Your task to perform on an android device: turn notification dots off Image 0: 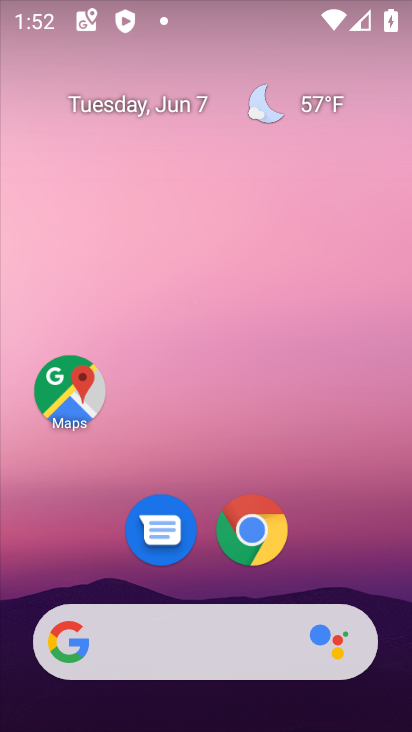
Step 0: drag from (311, 436) to (308, 123)
Your task to perform on an android device: turn notification dots off Image 1: 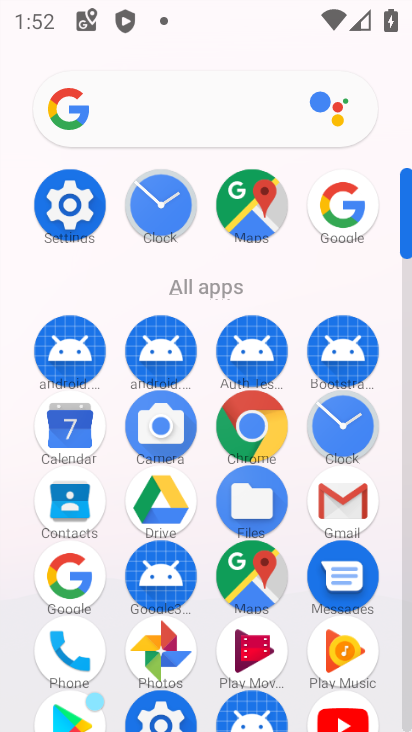
Step 1: click (77, 216)
Your task to perform on an android device: turn notification dots off Image 2: 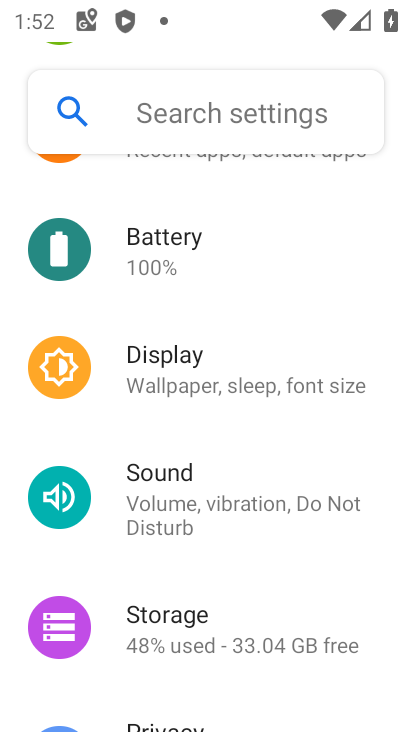
Step 2: drag from (193, 314) to (195, 428)
Your task to perform on an android device: turn notification dots off Image 3: 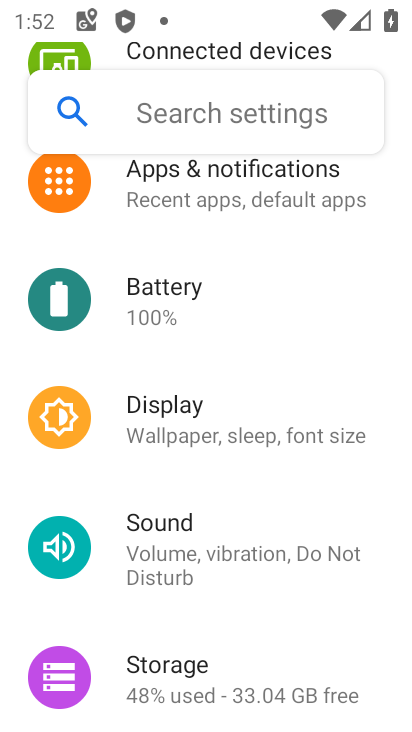
Step 3: click (176, 201)
Your task to perform on an android device: turn notification dots off Image 4: 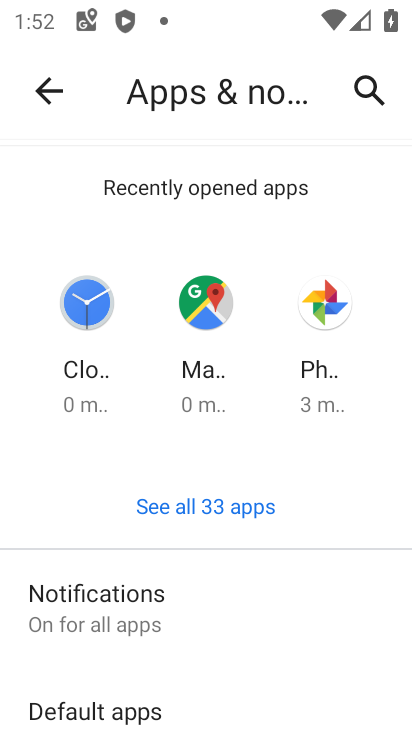
Step 4: click (115, 600)
Your task to perform on an android device: turn notification dots off Image 5: 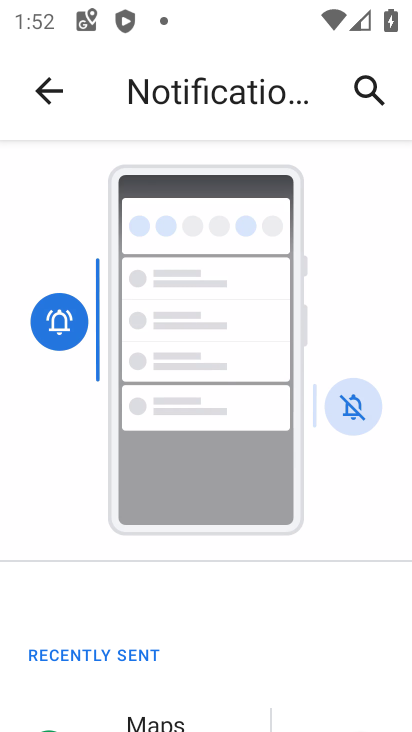
Step 5: drag from (211, 674) to (219, 120)
Your task to perform on an android device: turn notification dots off Image 6: 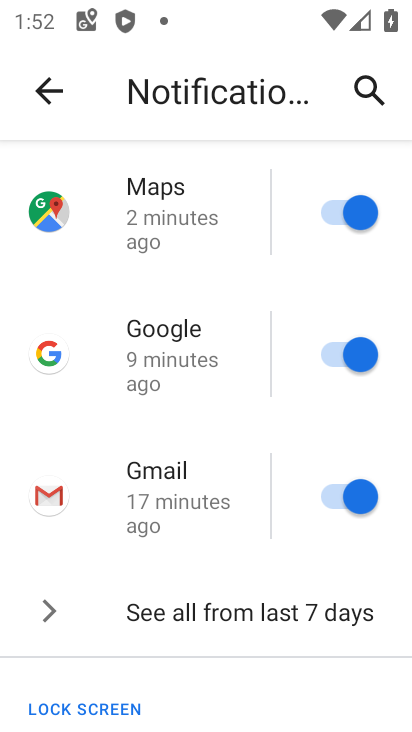
Step 6: drag from (196, 640) to (202, 141)
Your task to perform on an android device: turn notification dots off Image 7: 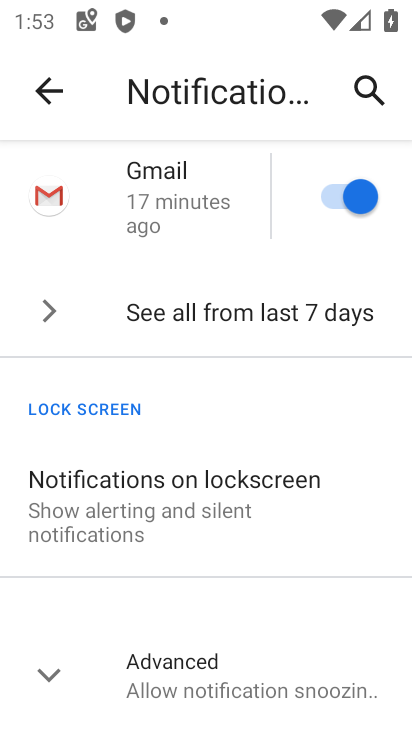
Step 7: click (189, 678)
Your task to perform on an android device: turn notification dots off Image 8: 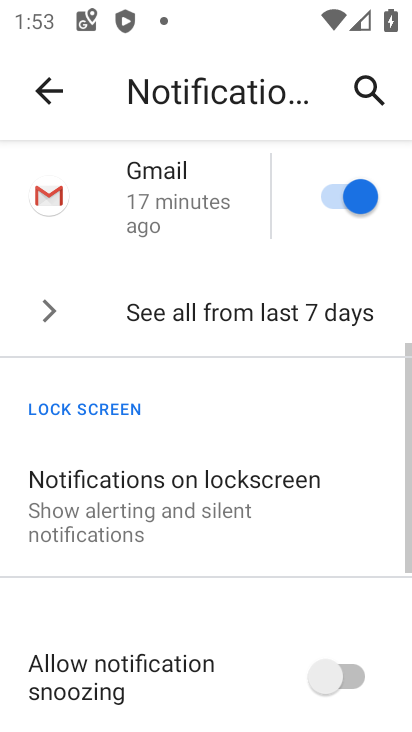
Step 8: drag from (244, 653) to (252, 173)
Your task to perform on an android device: turn notification dots off Image 9: 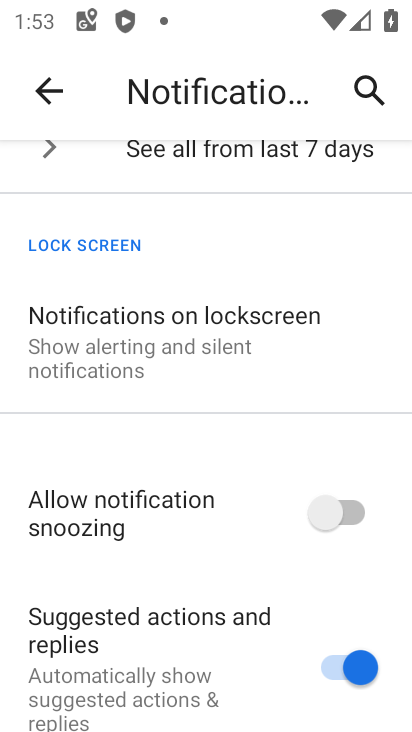
Step 9: drag from (217, 229) to (234, 173)
Your task to perform on an android device: turn notification dots off Image 10: 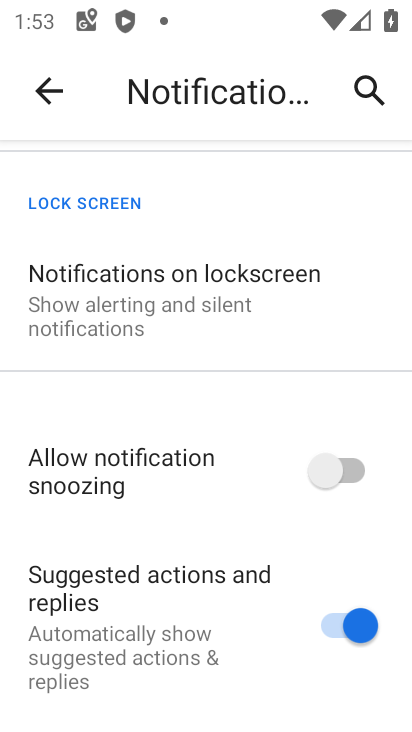
Step 10: drag from (206, 546) to (203, 262)
Your task to perform on an android device: turn notification dots off Image 11: 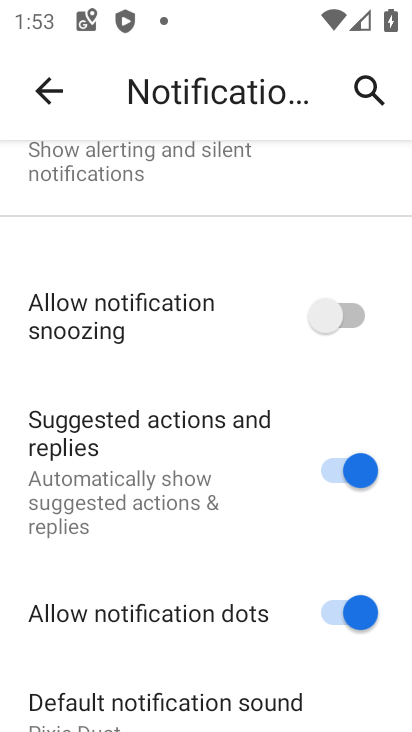
Step 11: click (347, 613)
Your task to perform on an android device: turn notification dots off Image 12: 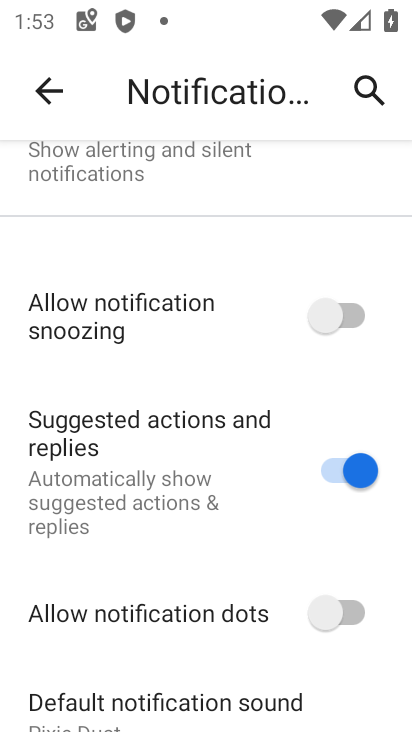
Step 12: task complete